Your task to perform on an android device: Go to battery settings Image 0: 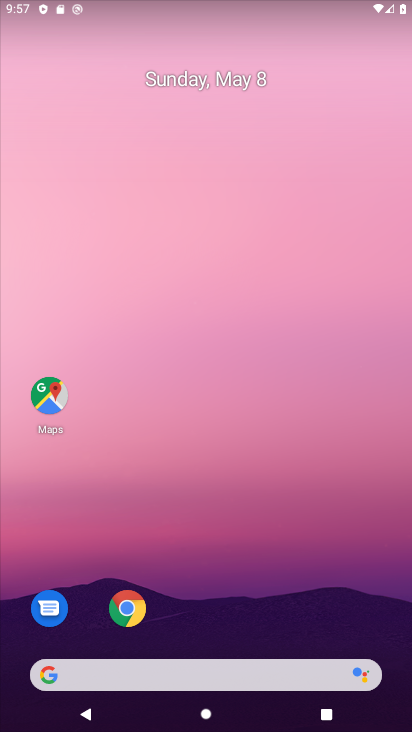
Step 0: drag from (199, 648) to (315, 181)
Your task to perform on an android device: Go to battery settings Image 1: 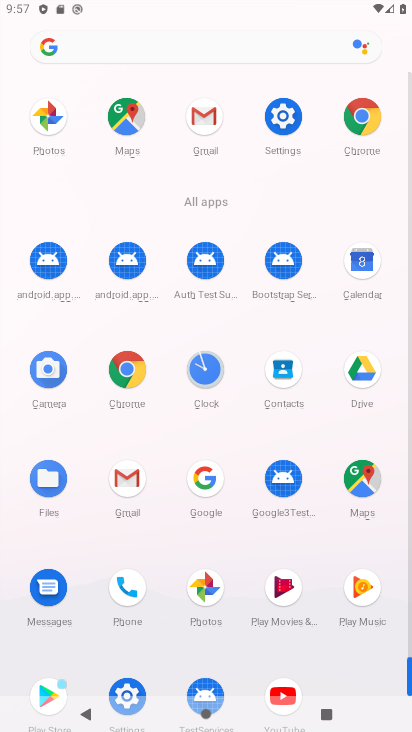
Step 1: click (280, 127)
Your task to perform on an android device: Go to battery settings Image 2: 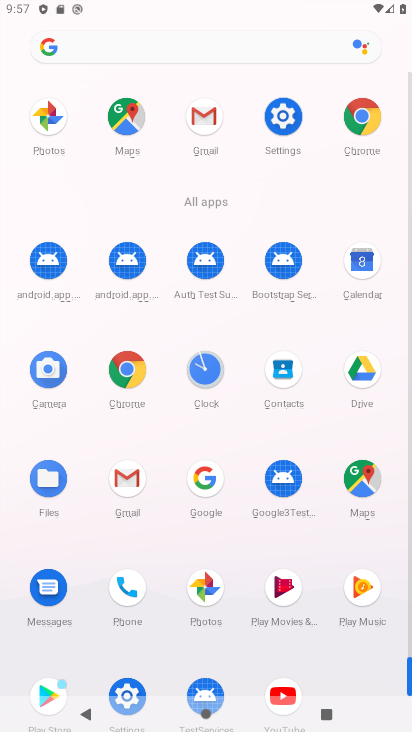
Step 2: click (280, 127)
Your task to perform on an android device: Go to battery settings Image 3: 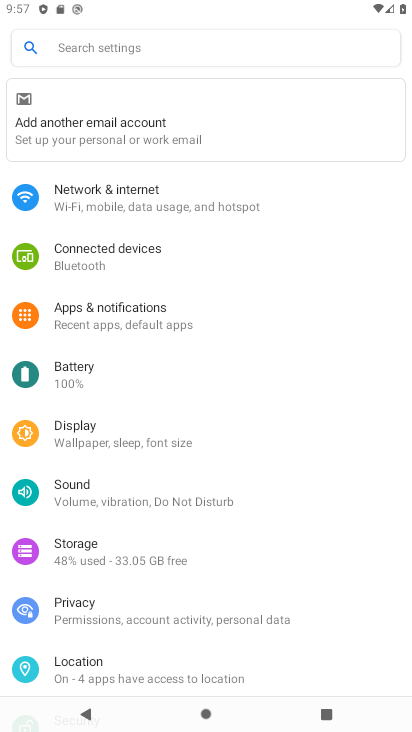
Step 3: click (140, 383)
Your task to perform on an android device: Go to battery settings Image 4: 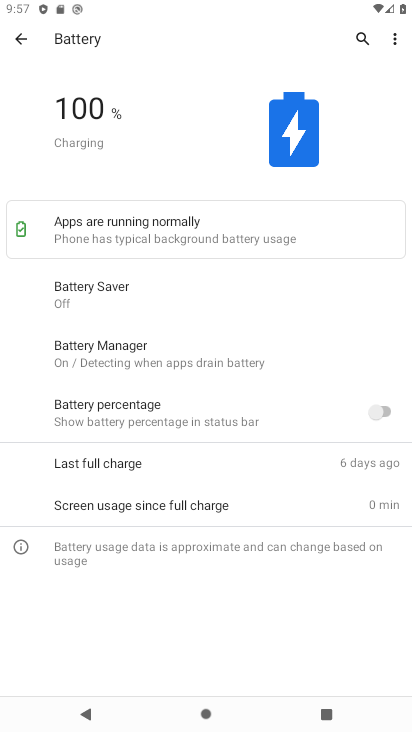
Step 4: task complete